Your task to perform on an android device: turn off notifications settings in the gmail app Image 0: 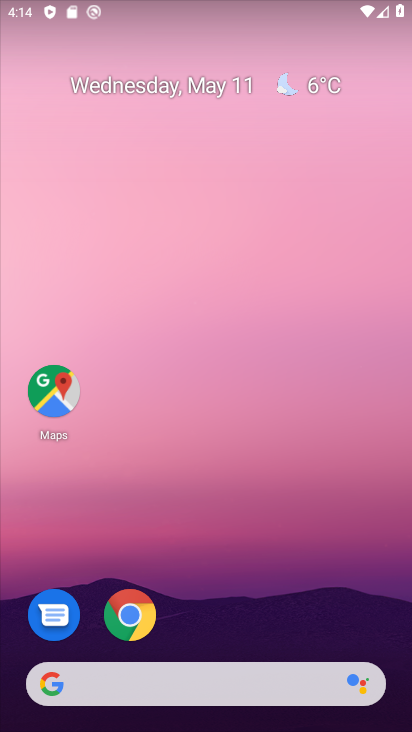
Step 0: drag from (264, 563) to (223, 157)
Your task to perform on an android device: turn off notifications settings in the gmail app Image 1: 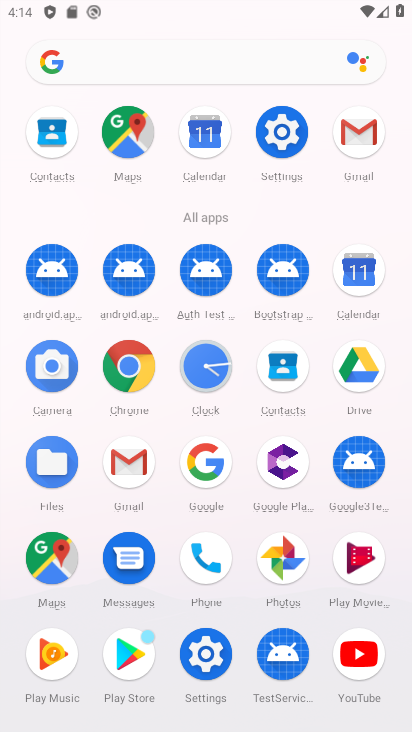
Step 1: click (117, 470)
Your task to perform on an android device: turn off notifications settings in the gmail app Image 2: 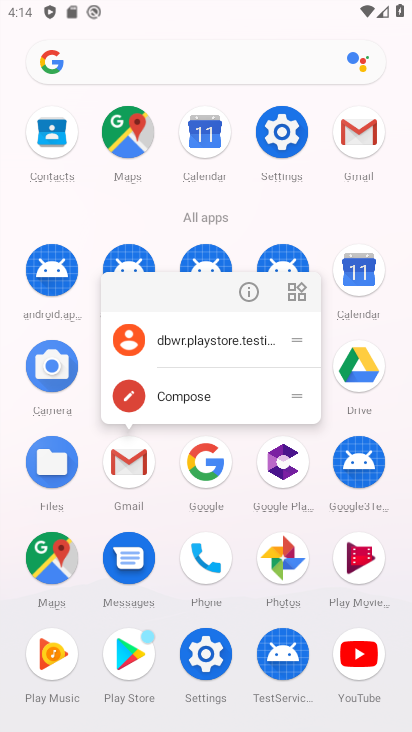
Step 2: click (248, 297)
Your task to perform on an android device: turn off notifications settings in the gmail app Image 3: 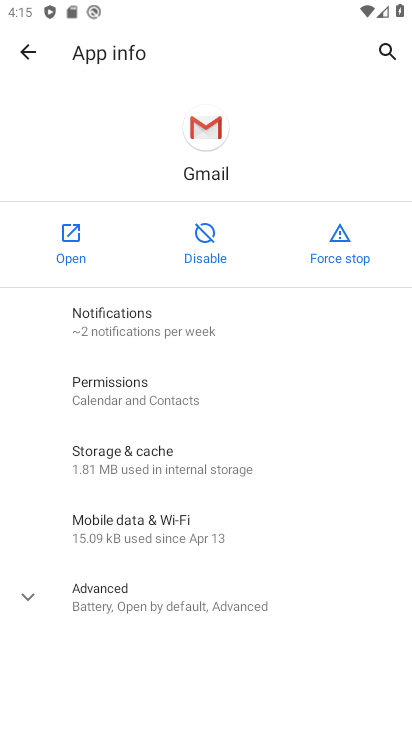
Step 3: click (120, 321)
Your task to perform on an android device: turn off notifications settings in the gmail app Image 4: 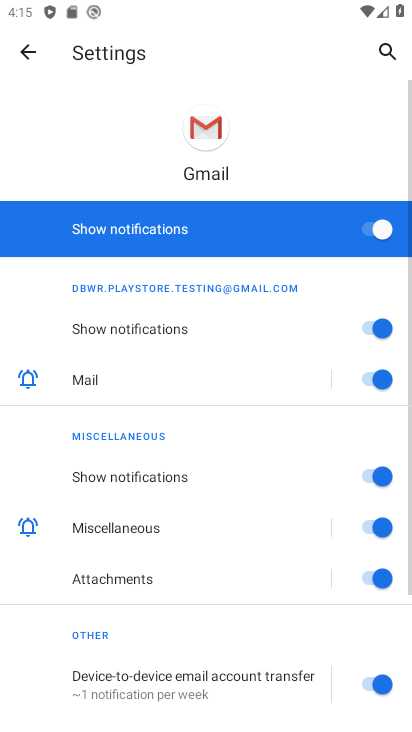
Step 4: click (371, 239)
Your task to perform on an android device: turn off notifications settings in the gmail app Image 5: 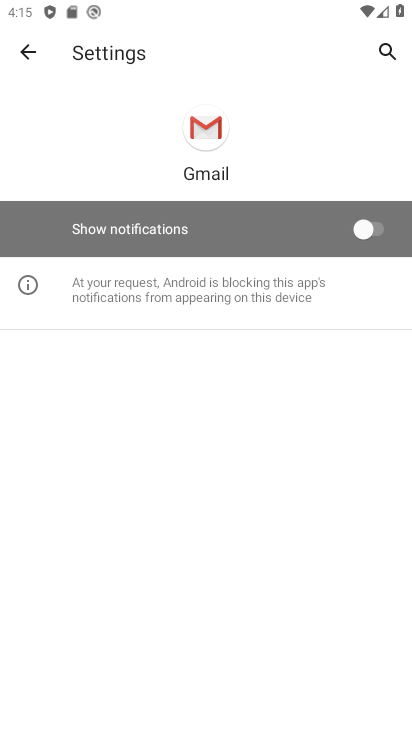
Step 5: task complete